Your task to perform on an android device: Open the map Image 0: 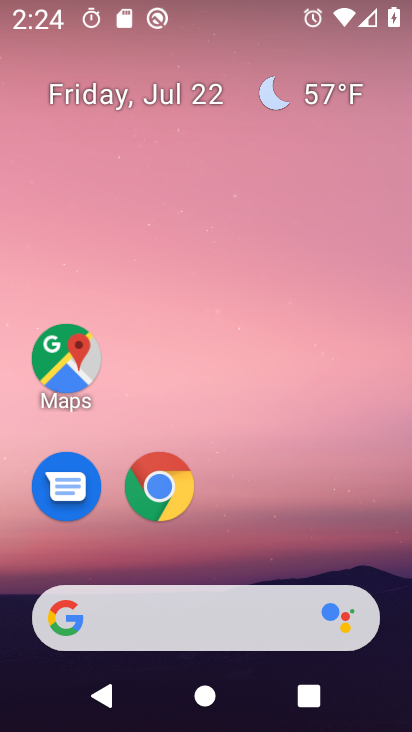
Step 0: drag from (366, 517) to (381, 131)
Your task to perform on an android device: Open the map Image 1: 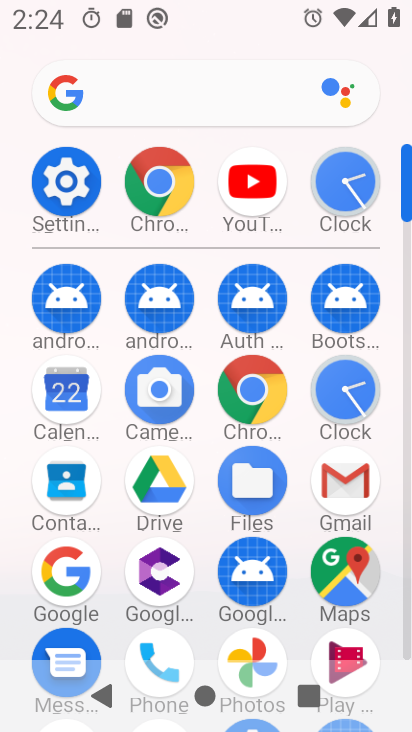
Step 1: click (346, 572)
Your task to perform on an android device: Open the map Image 2: 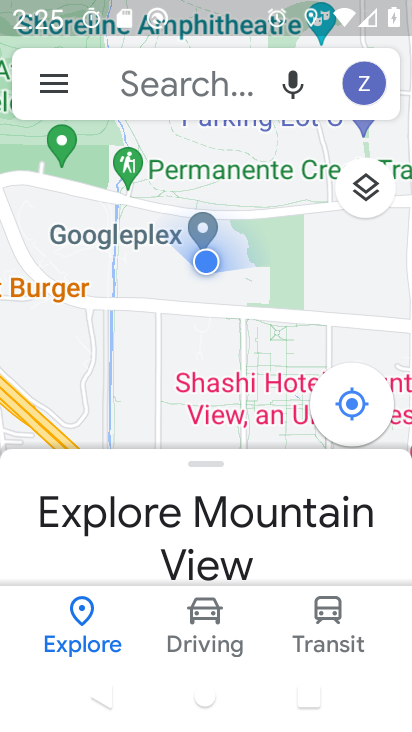
Step 2: task complete